Your task to perform on an android device: Open Google Chrome Image 0: 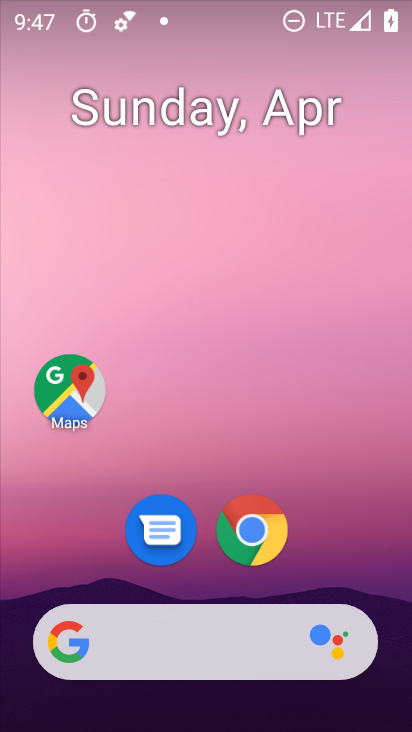
Step 0: click (259, 538)
Your task to perform on an android device: Open Google Chrome Image 1: 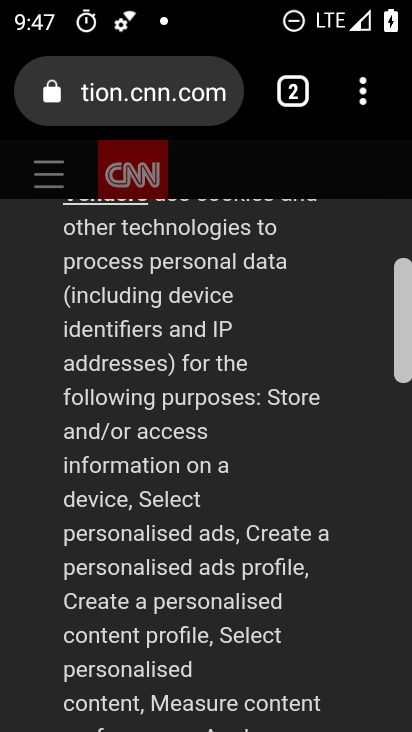
Step 1: task complete